Your task to perform on an android device: uninstall "Airtel Thanks" Image 0: 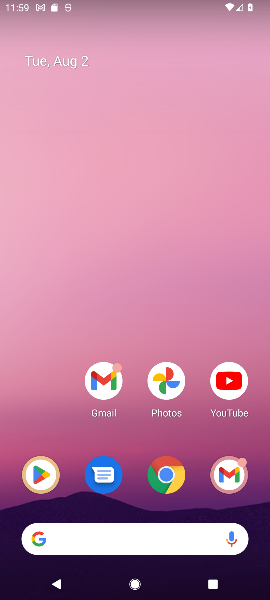
Step 0: click (38, 475)
Your task to perform on an android device: uninstall "Airtel Thanks" Image 1: 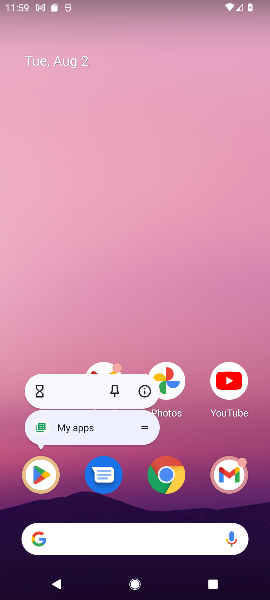
Step 1: click (38, 473)
Your task to perform on an android device: uninstall "Airtel Thanks" Image 2: 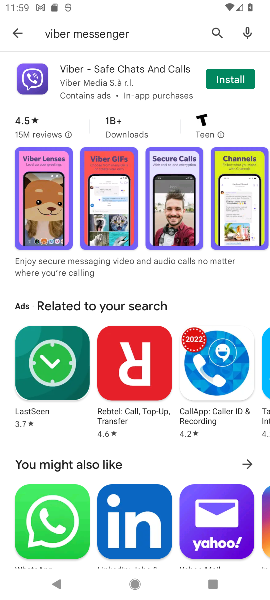
Step 2: click (216, 31)
Your task to perform on an android device: uninstall "Airtel Thanks" Image 3: 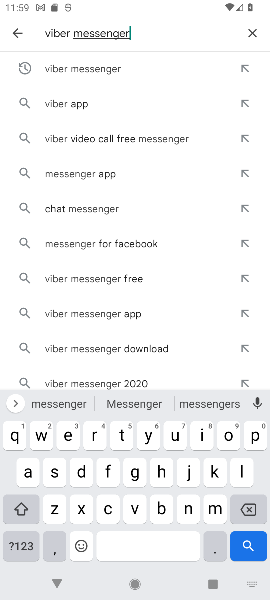
Step 3: click (259, 28)
Your task to perform on an android device: uninstall "Airtel Thanks" Image 4: 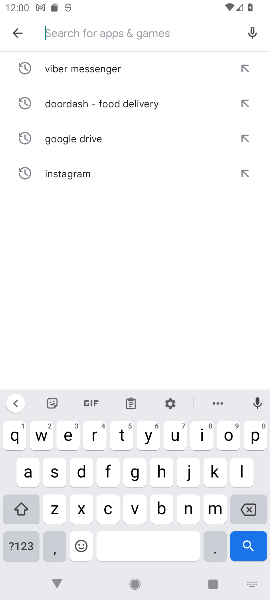
Step 4: type "Airtel Thanks"
Your task to perform on an android device: uninstall "Airtel Thanks" Image 5: 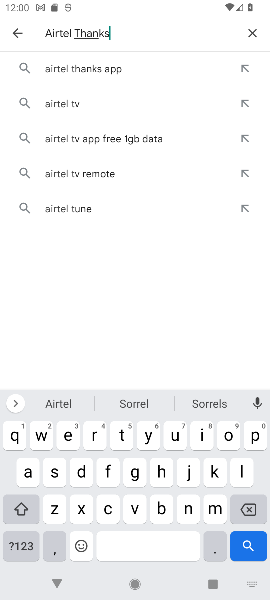
Step 5: type ""
Your task to perform on an android device: uninstall "Airtel Thanks" Image 6: 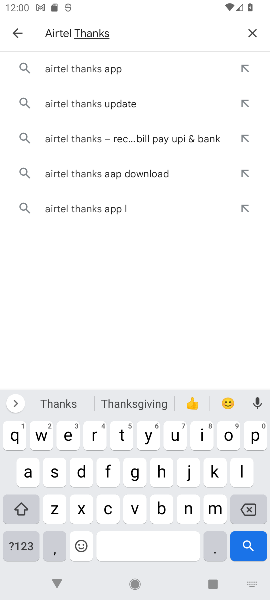
Step 6: click (155, 64)
Your task to perform on an android device: uninstall "Airtel Thanks" Image 7: 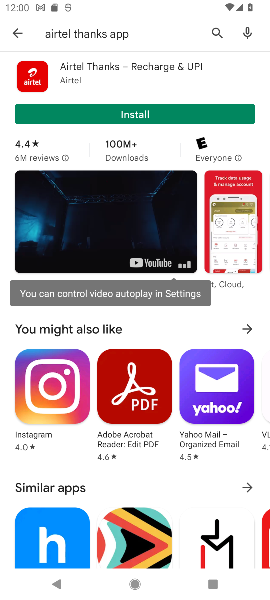
Step 7: task complete